Your task to perform on an android device: toggle show notifications on the lock screen Image 0: 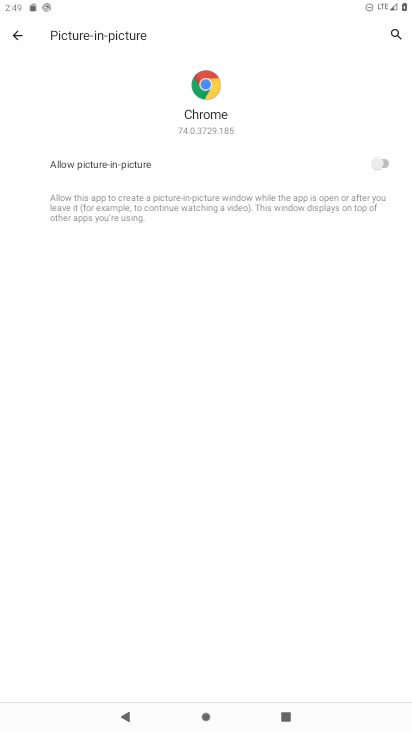
Step 0: press home button
Your task to perform on an android device: toggle show notifications on the lock screen Image 1: 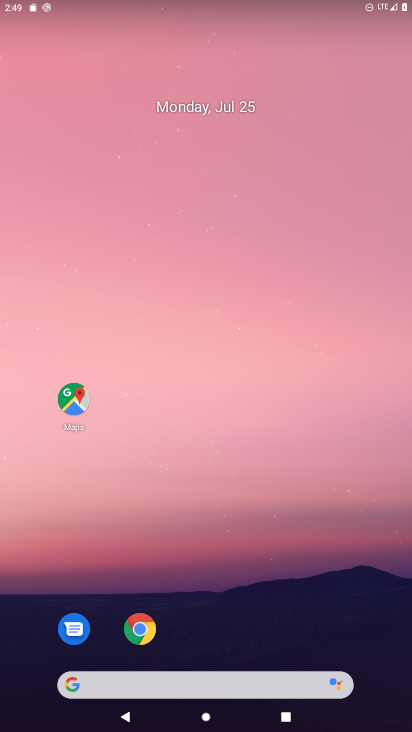
Step 1: drag from (269, 595) to (286, 211)
Your task to perform on an android device: toggle show notifications on the lock screen Image 2: 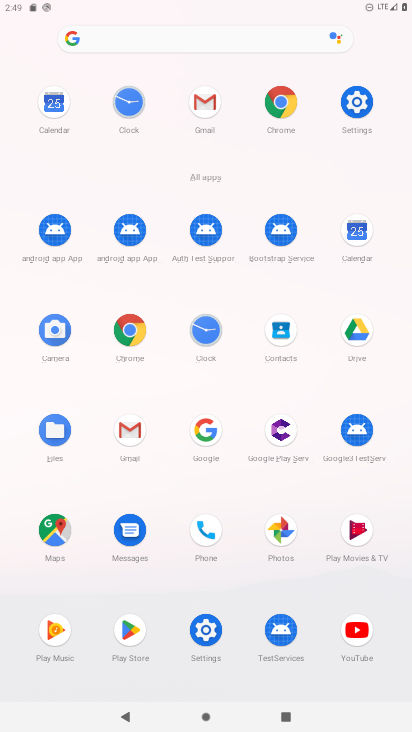
Step 2: click (206, 639)
Your task to perform on an android device: toggle show notifications on the lock screen Image 3: 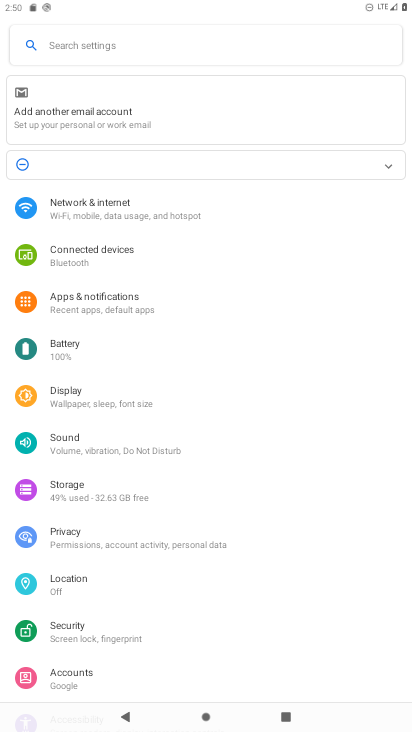
Step 3: click (105, 294)
Your task to perform on an android device: toggle show notifications on the lock screen Image 4: 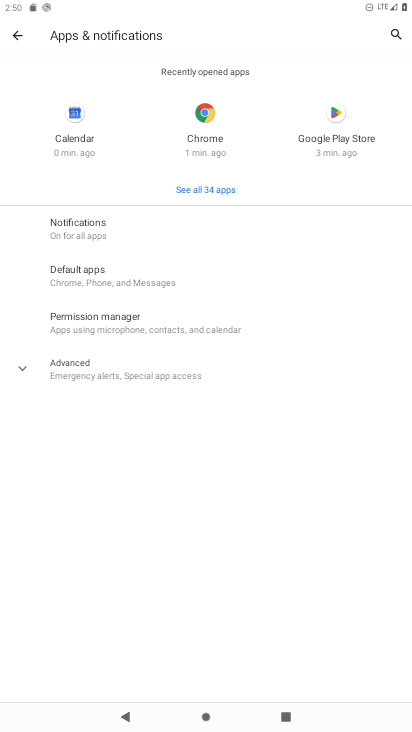
Step 4: click (81, 216)
Your task to perform on an android device: toggle show notifications on the lock screen Image 5: 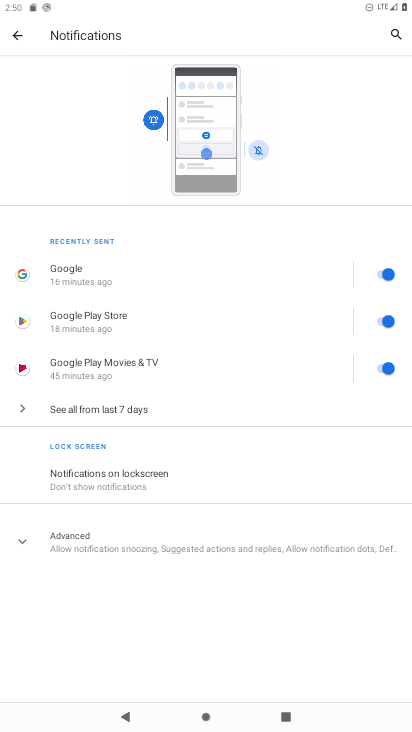
Step 5: click (172, 479)
Your task to perform on an android device: toggle show notifications on the lock screen Image 6: 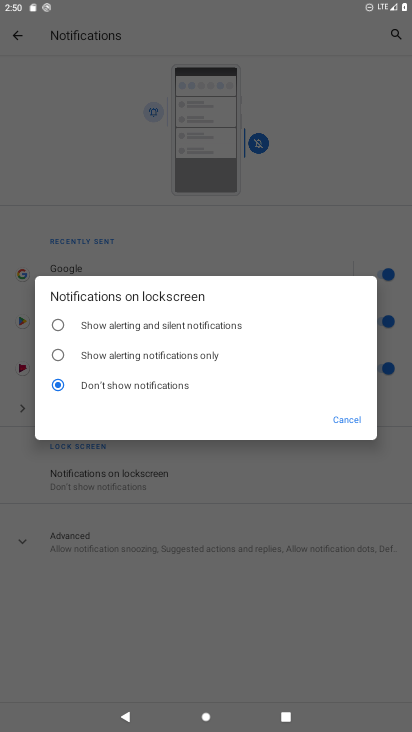
Step 6: click (136, 322)
Your task to perform on an android device: toggle show notifications on the lock screen Image 7: 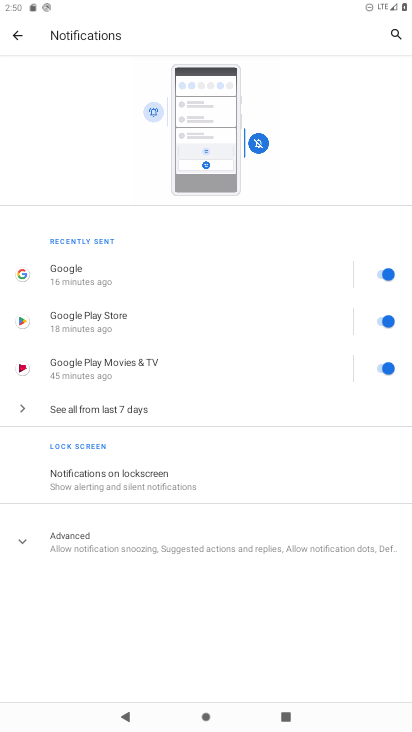
Step 7: task complete